Your task to perform on an android device: Empty the shopping cart on newegg.com. Image 0: 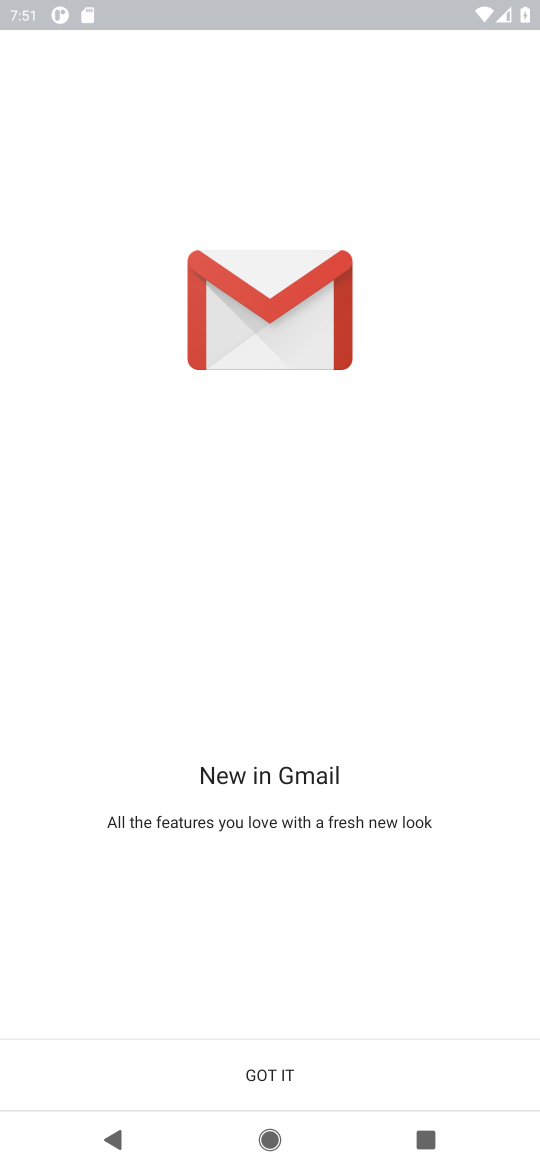
Step 0: press home button
Your task to perform on an android device: Empty the shopping cart on newegg.com. Image 1: 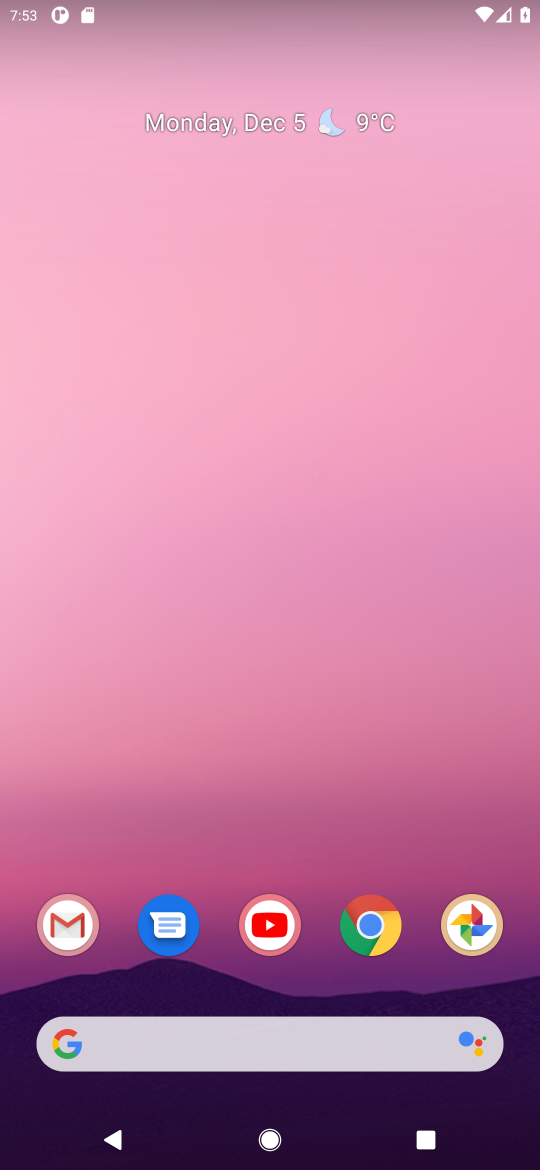
Step 1: click (374, 938)
Your task to perform on an android device: Empty the shopping cart on newegg.com. Image 2: 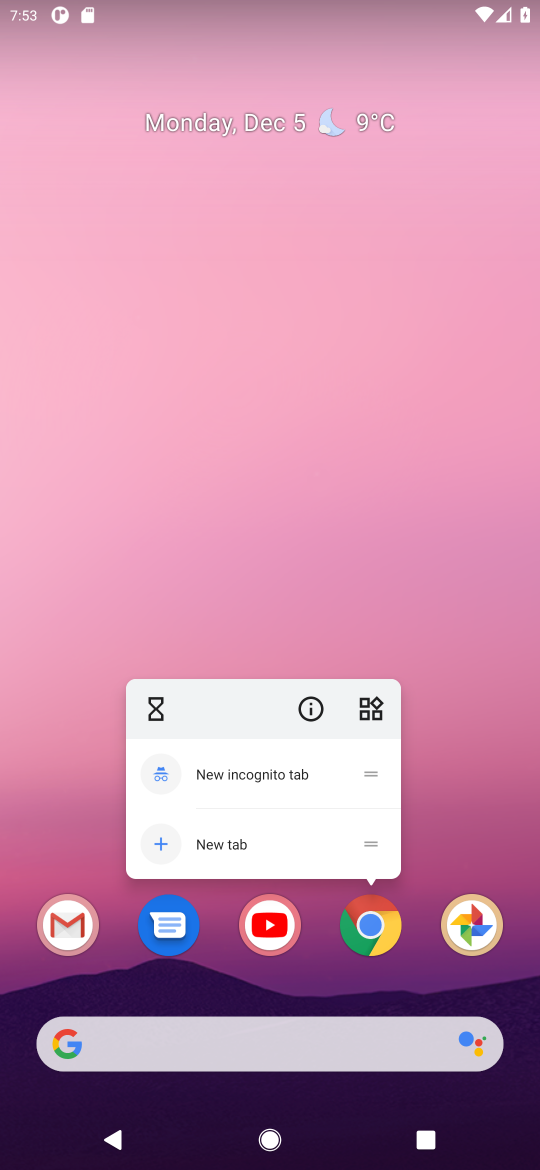
Step 2: click (372, 944)
Your task to perform on an android device: Empty the shopping cart on newegg.com. Image 3: 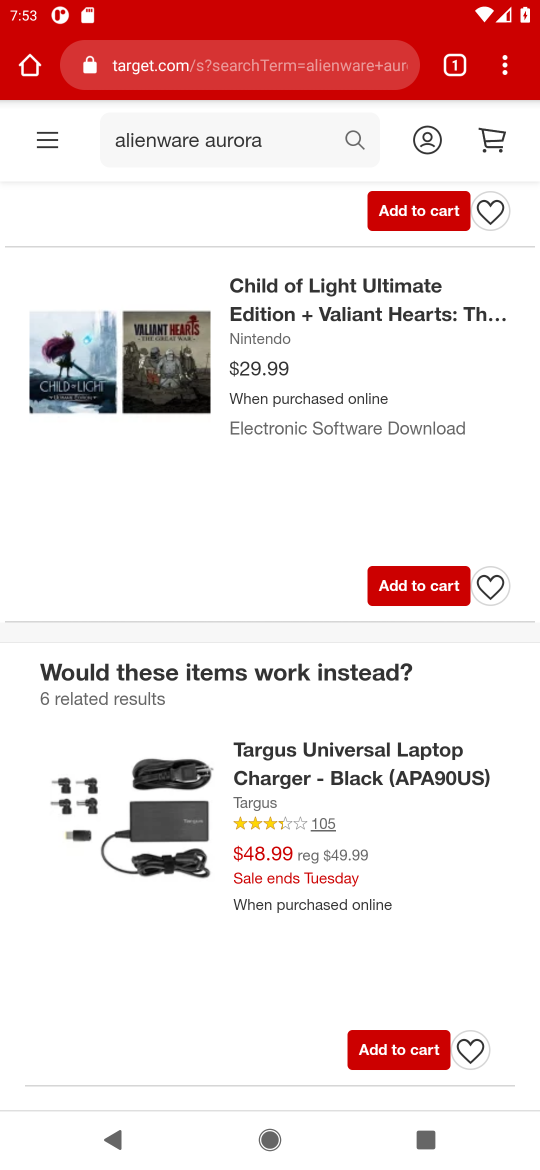
Step 3: click (279, 49)
Your task to perform on an android device: Empty the shopping cart on newegg.com. Image 4: 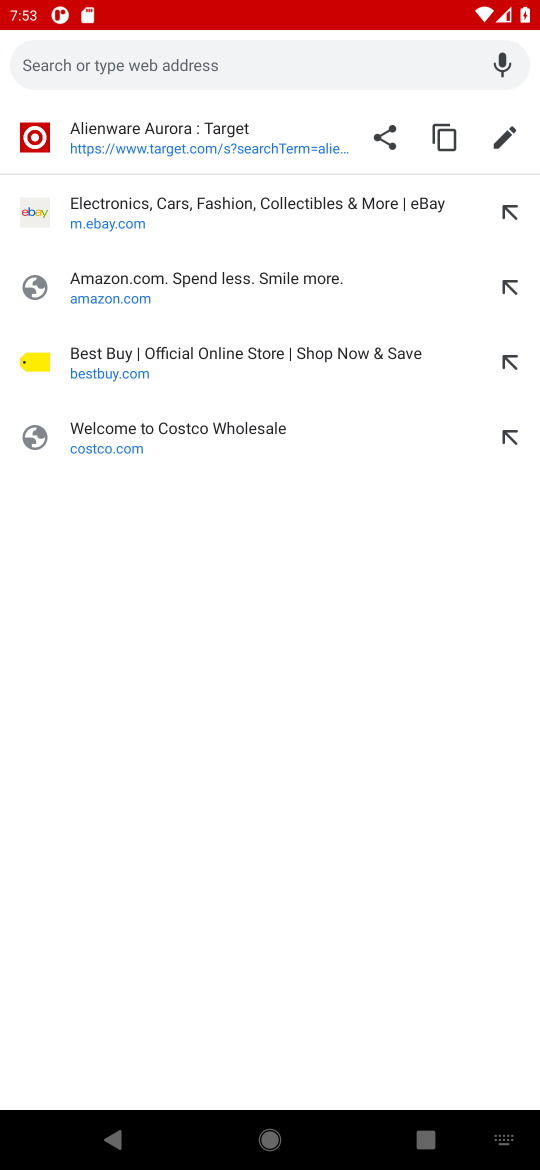
Step 4: type "newegg.com"
Your task to perform on an android device: Empty the shopping cart on newegg.com. Image 5: 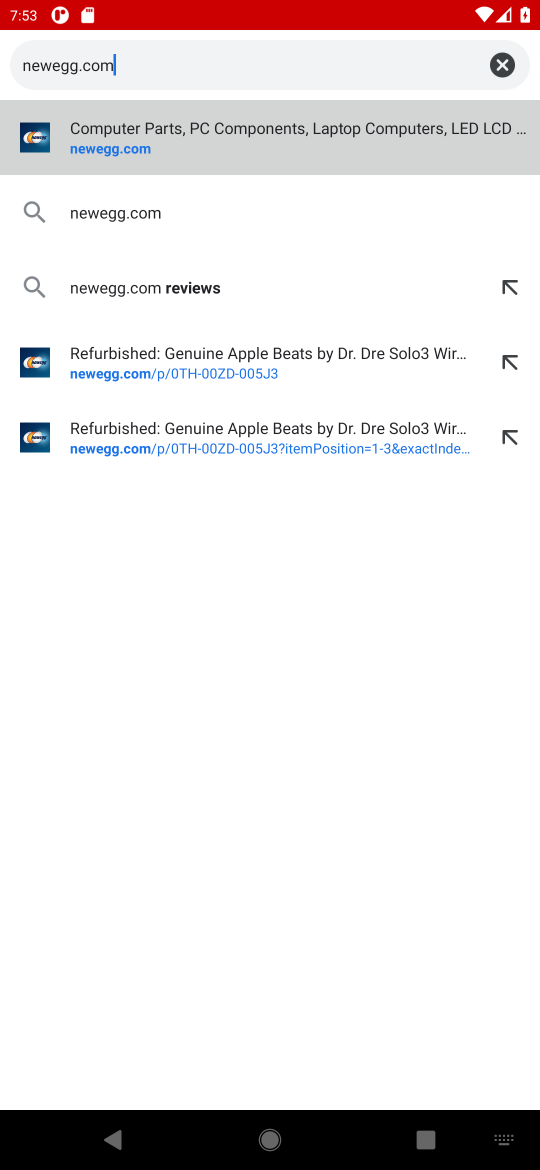
Step 5: click (101, 143)
Your task to perform on an android device: Empty the shopping cart on newegg.com. Image 6: 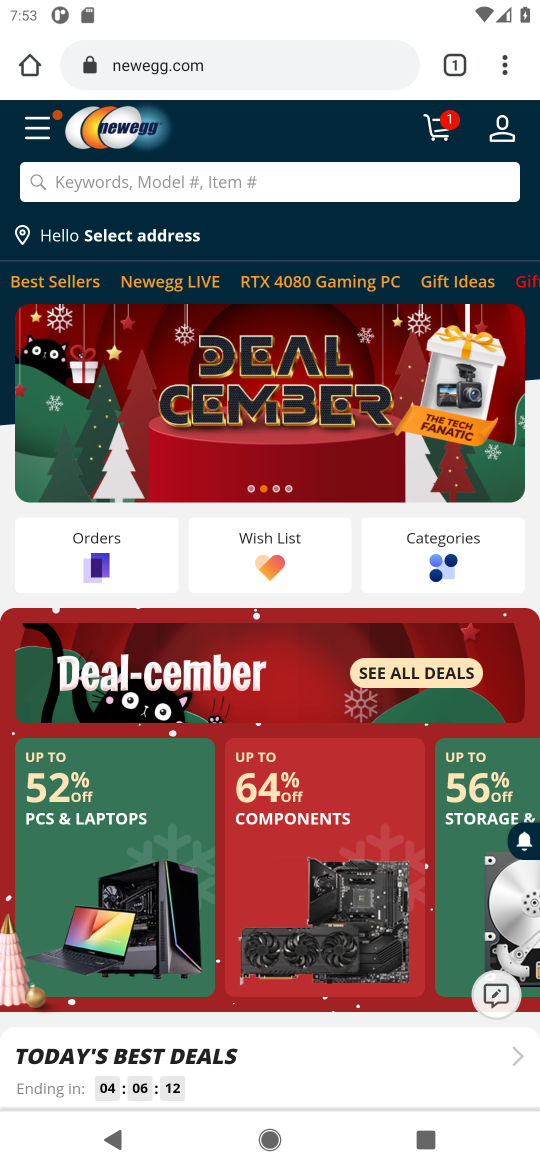
Step 6: click (442, 135)
Your task to perform on an android device: Empty the shopping cart on newegg.com. Image 7: 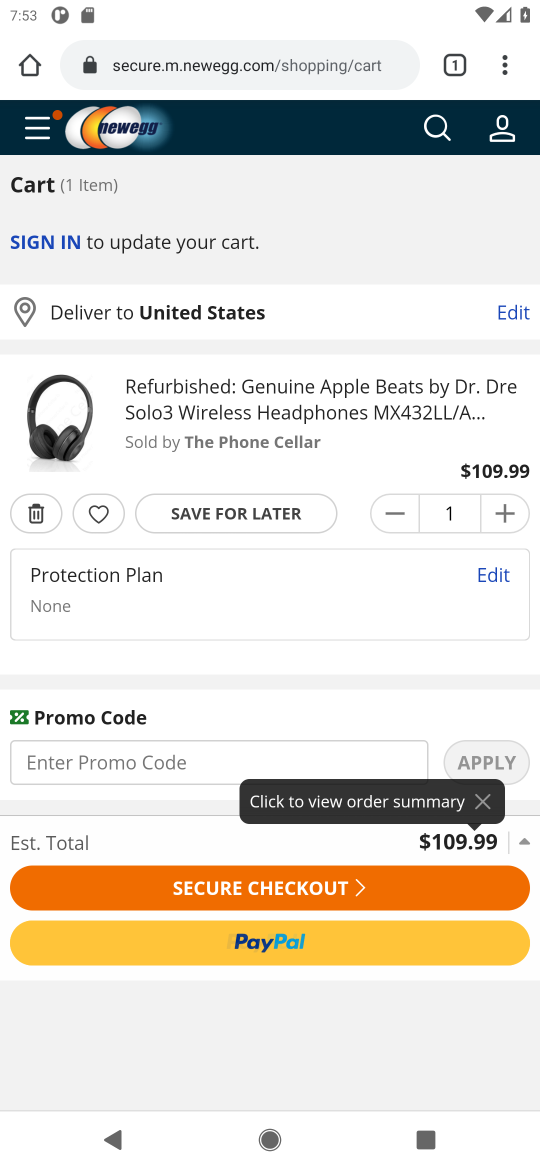
Step 7: click (39, 512)
Your task to perform on an android device: Empty the shopping cart on newegg.com. Image 8: 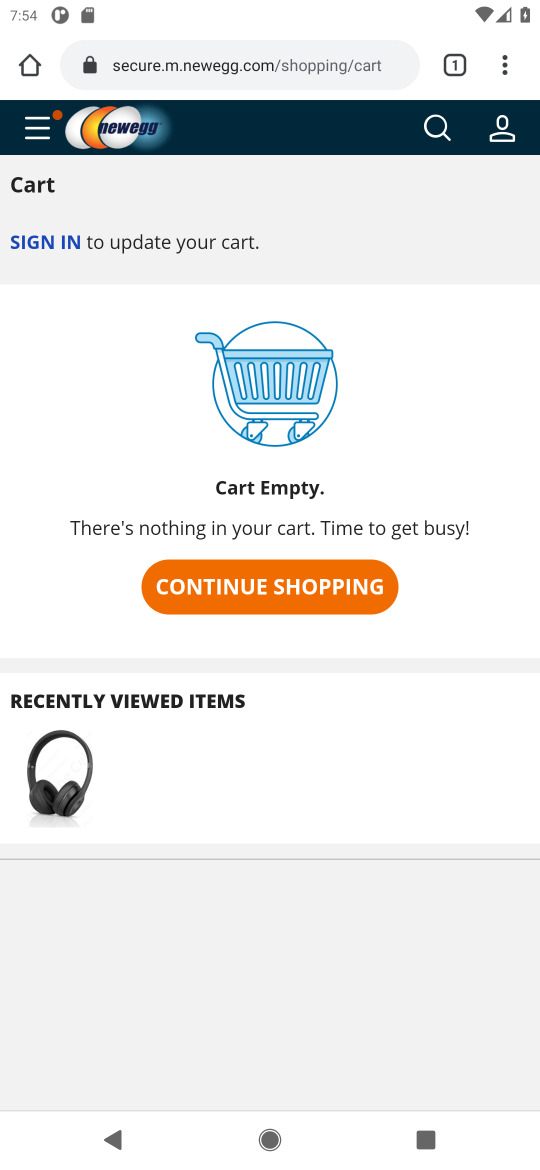
Step 8: task complete